Your task to perform on an android device: refresh tabs in the chrome app Image 0: 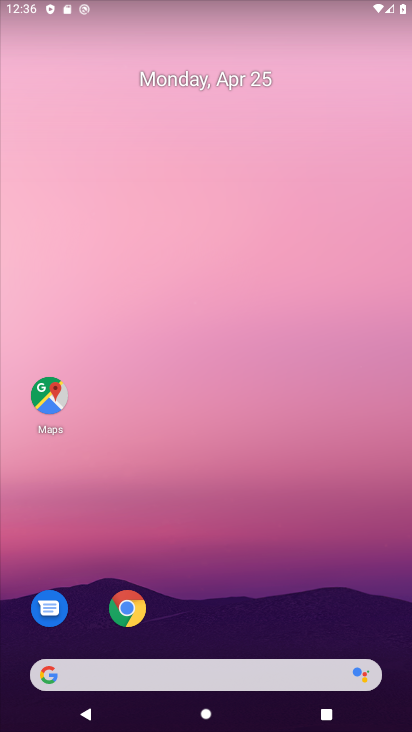
Step 0: drag from (247, 495) to (301, 5)
Your task to perform on an android device: refresh tabs in the chrome app Image 1: 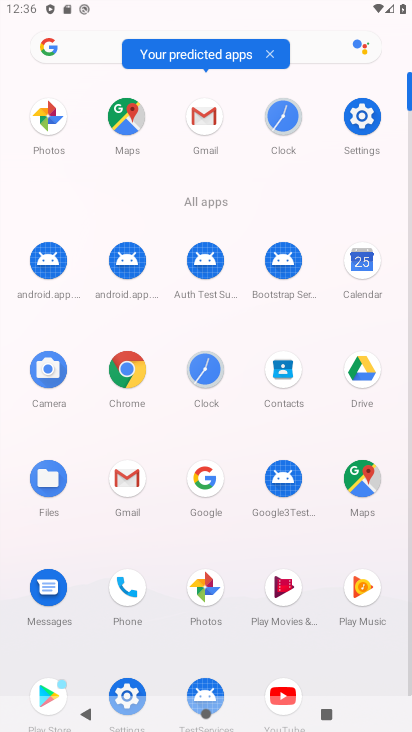
Step 1: click (123, 370)
Your task to perform on an android device: refresh tabs in the chrome app Image 2: 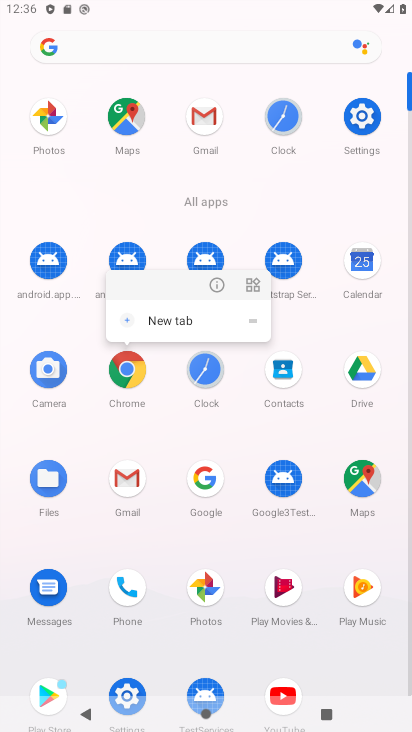
Step 2: click (119, 380)
Your task to perform on an android device: refresh tabs in the chrome app Image 3: 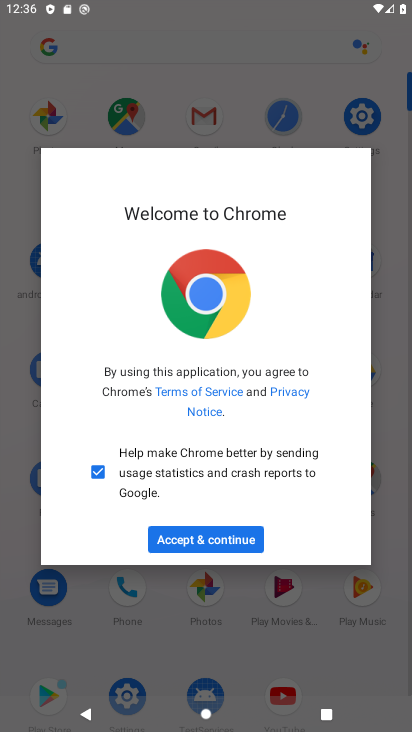
Step 3: click (204, 541)
Your task to perform on an android device: refresh tabs in the chrome app Image 4: 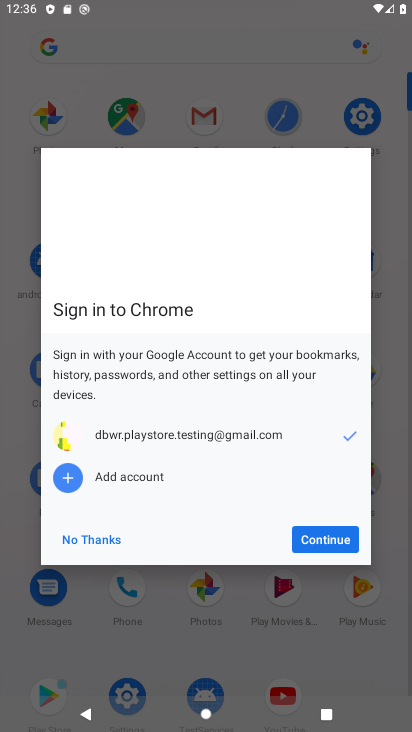
Step 4: click (322, 537)
Your task to perform on an android device: refresh tabs in the chrome app Image 5: 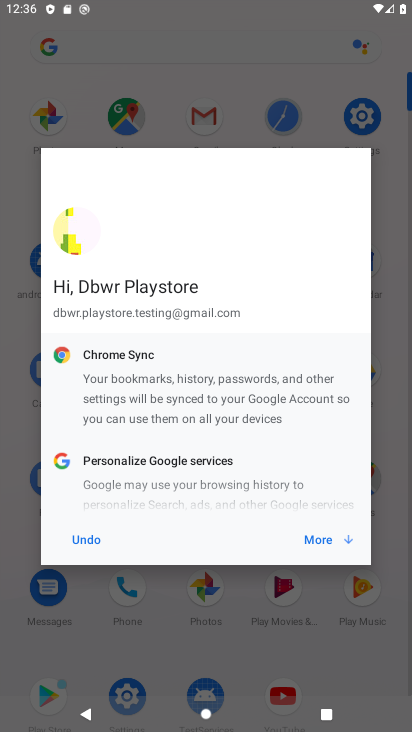
Step 5: click (322, 541)
Your task to perform on an android device: refresh tabs in the chrome app Image 6: 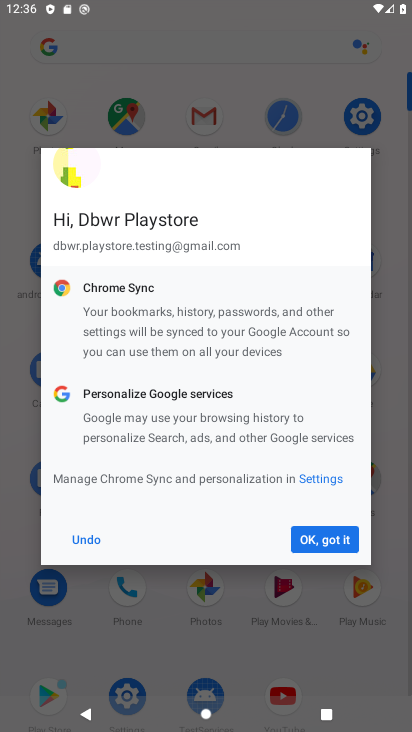
Step 6: click (322, 541)
Your task to perform on an android device: refresh tabs in the chrome app Image 7: 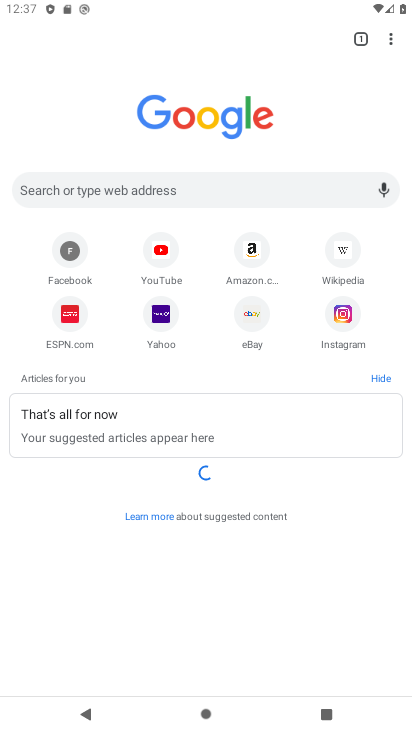
Step 7: click (394, 24)
Your task to perform on an android device: refresh tabs in the chrome app Image 8: 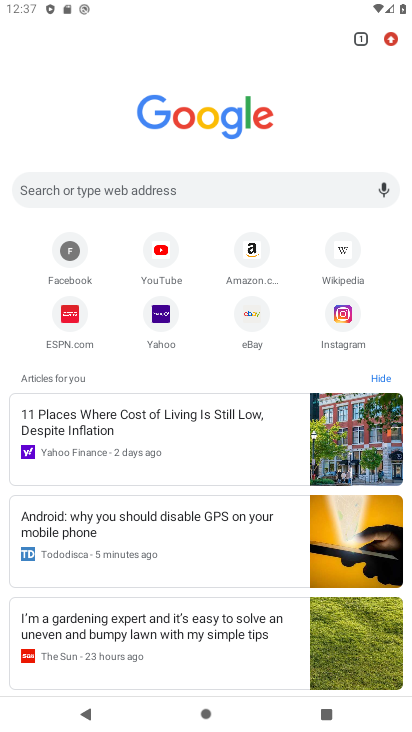
Step 8: task complete